Your task to perform on an android device: Is it going to rain today? Image 0: 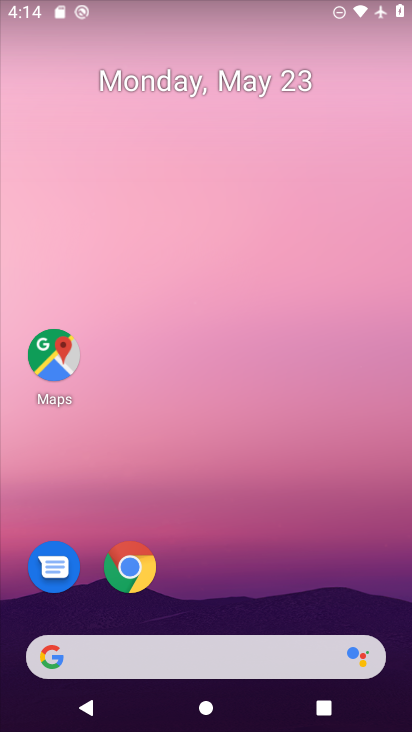
Step 0: click (168, 659)
Your task to perform on an android device: Is it going to rain today? Image 1: 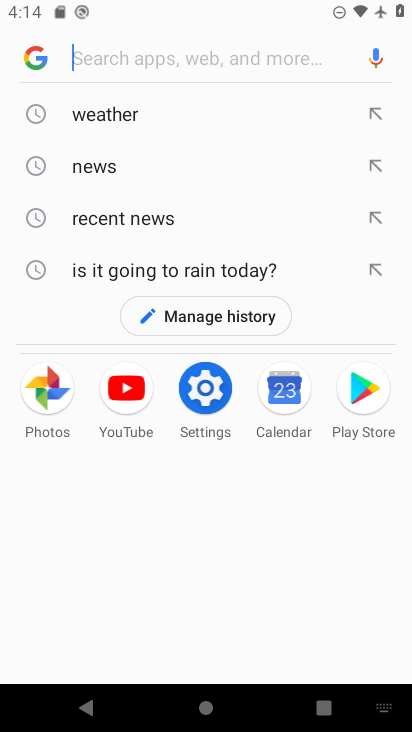
Step 1: click (129, 124)
Your task to perform on an android device: Is it going to rain today? Image 2: 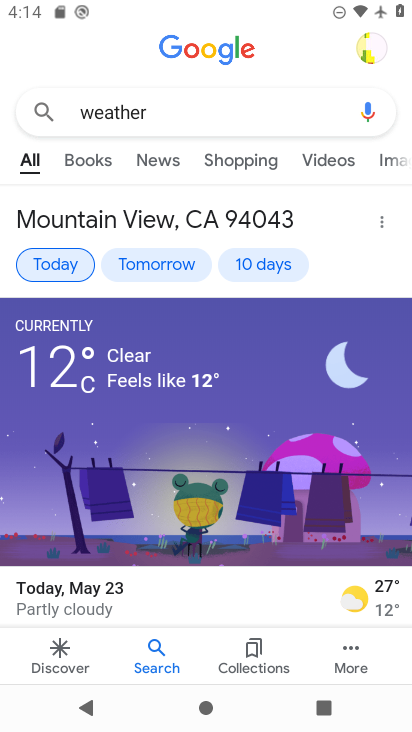
Step 2: task complete